Your task to perform on an android device: create a new album in the google photos Image 0: 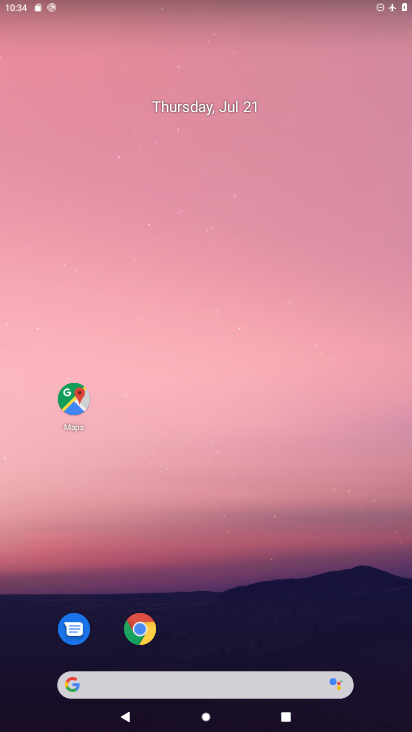
Step 0: click (260, 98)
Your task to perform on an android device: create a new album in the google photos Image 1: 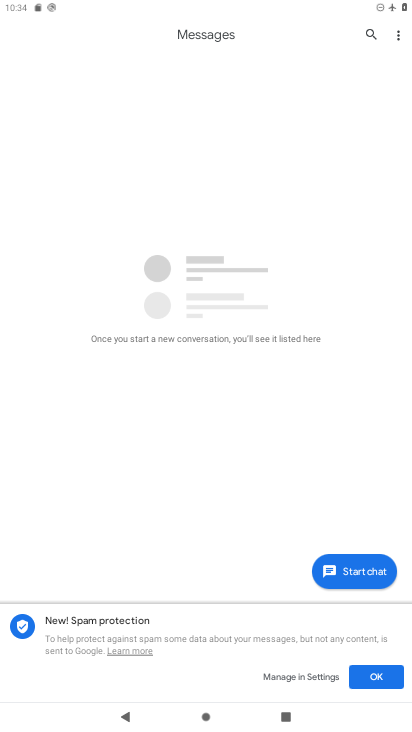
Step 1: press home button
Your task to perform on an android device: create a new album in the google photos Image 2: 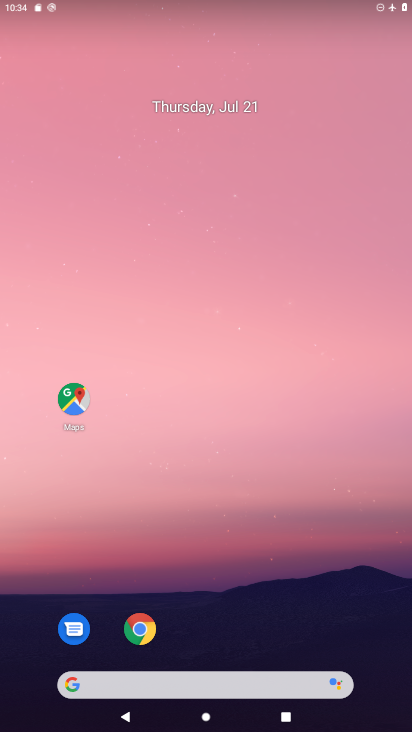
Step 2: drag from (164, 605) to (225, 145)
Your task to perform on an android device: create a new album in the google photos Image 3: 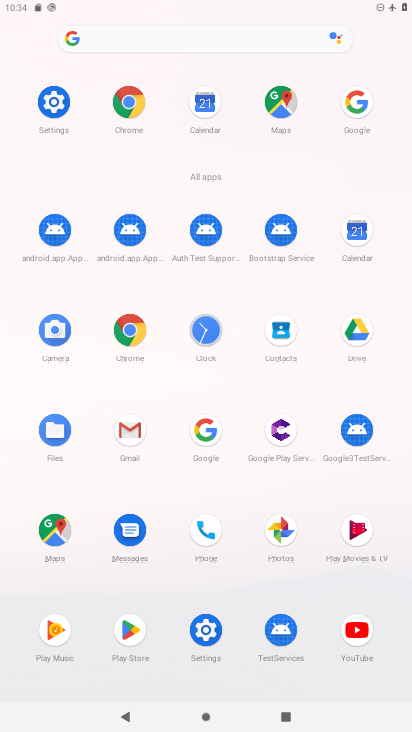
Step 3: click (281, 531)
Your task to perform on an android device: create a new album in the google photos Image 4: 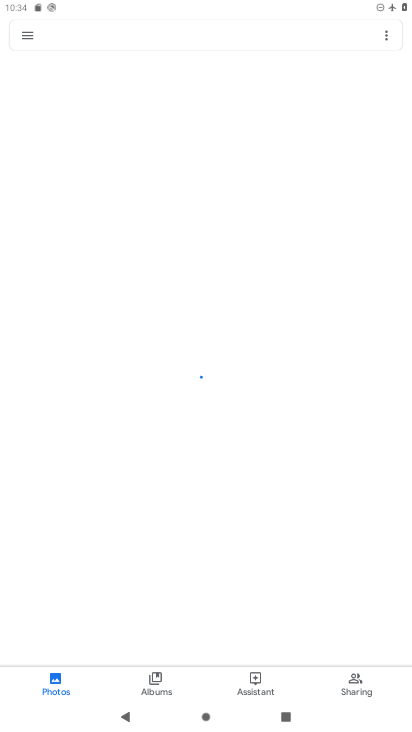
Step 4: click (154, 684)
Your task to perform on an android device: create a new album in the google photos Image 5: 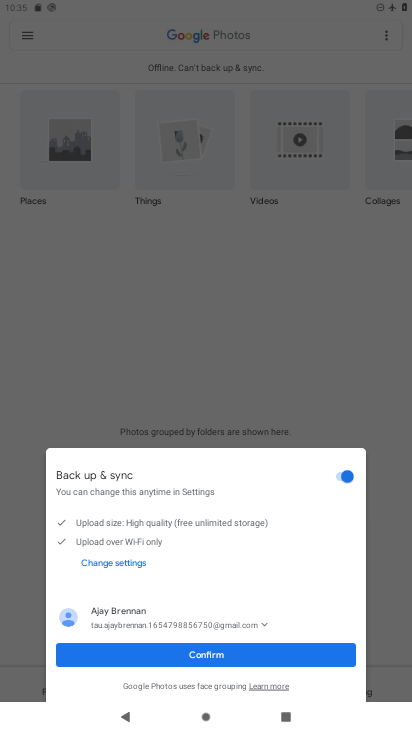
Step 5: click (226, 660)
Your task to perform on an android device: create a new album in the google photos Image 6: 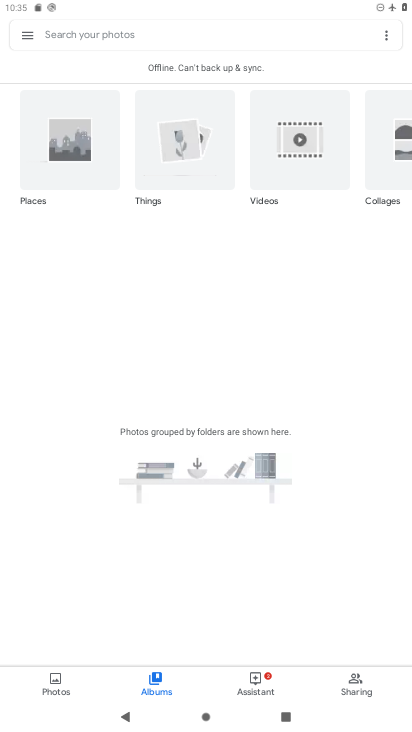
Step 6: task complete